Your task to perform on an android device: allow cookies in the chrome app Image 0: 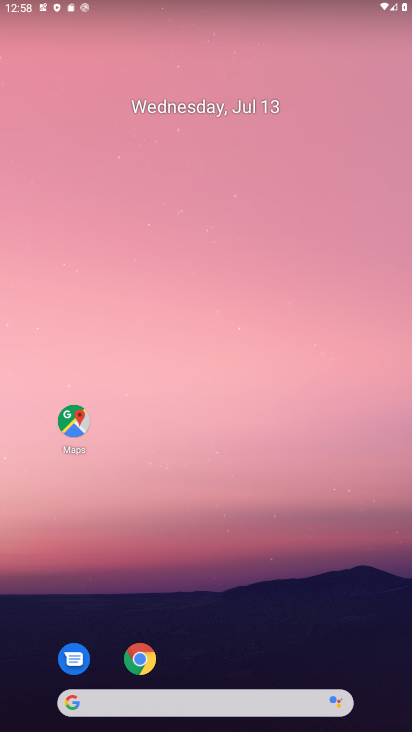
Step 0: drag from (193, 600) to (278, 38)
Your task to perform on an android device: allow cookies in the chrome app Image 1: 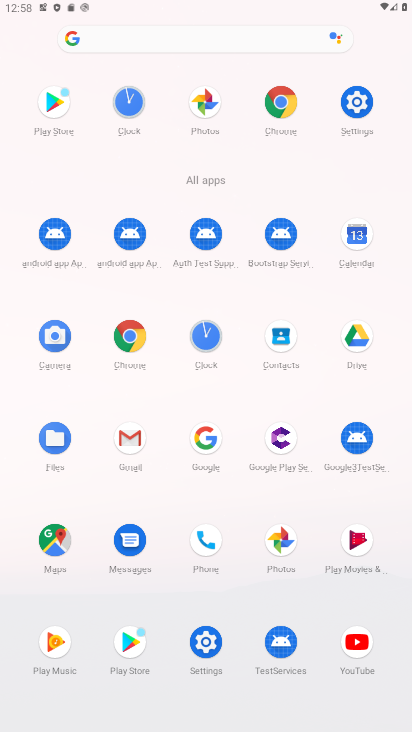
Step 1: click (276, 105)
Your task to perform on an android device: allow cookies in the chrome app Image 2: 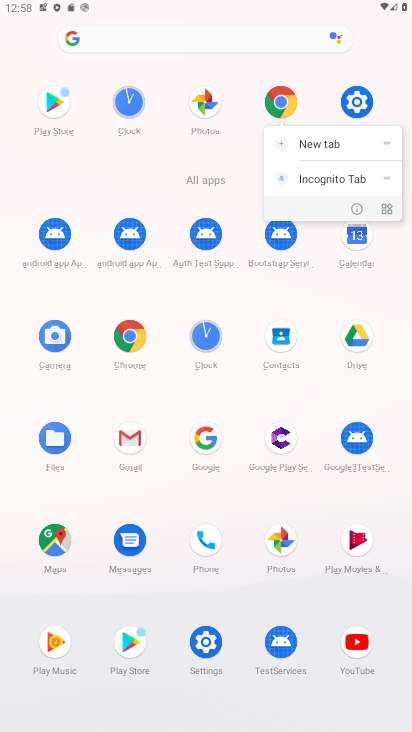
Step 2: click (346, 211)
Your task to perform on an android device: allow cookies in the chrome app Image 3: 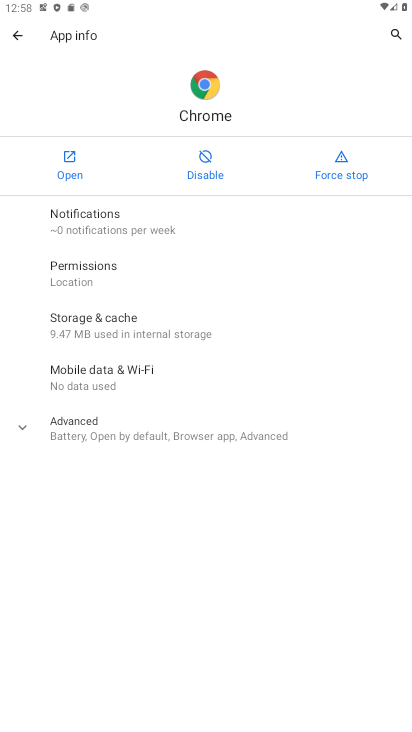
Step 3: click (83, 170)
Your task to perform on an android device: allow cookies in the chrome app Image 4: 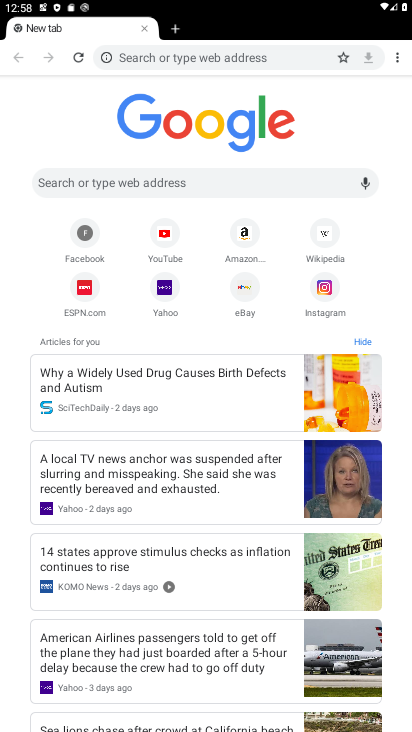
Step 4: click (404, 65)
Your task to perform on an android device: allow cookies in the chrome app Image 5: 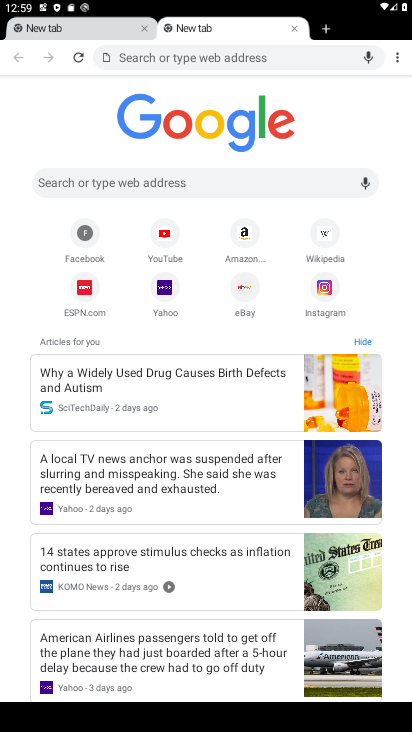
Step 5: click (402, 66)
Your task to perform on an android device: allow cookies in the chrome app Image 6: 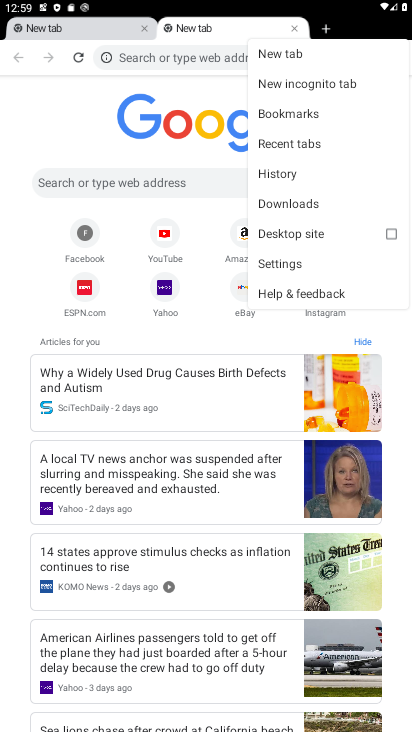
Step 6: click (304, 269)
Your task to perform on an android device: allow cookies in the chrome app Image 7: 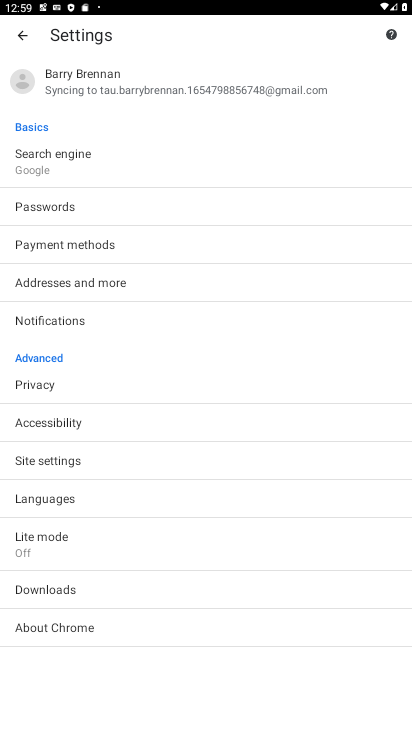
Step 7: drag from (268, 523) to (323, 170)
Your task to perform on an android device: allow cookies in the chrome app Image 8: 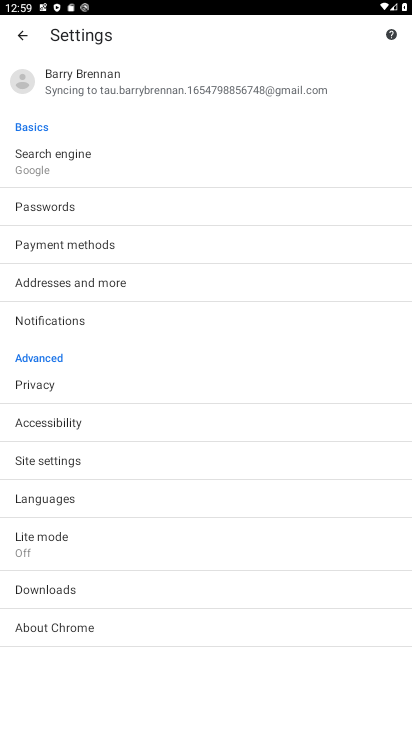
Step 8: drag from (86, 567) to (161, 278)
Your task to perform on an android device: allow cookies in the chrome app Image 9: 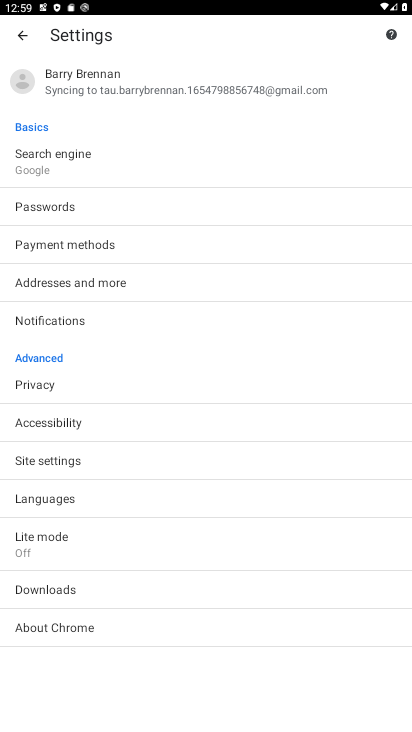
Step 9: click (95, 466)
Your task to perform on an android device: allow cookies in the chrome app Image 10: 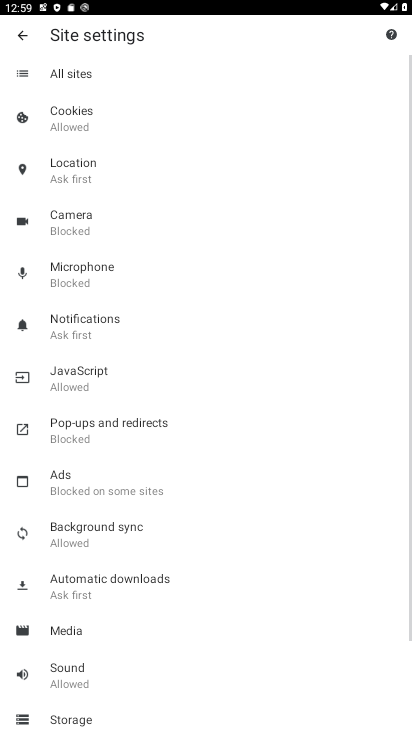
Step 10: click (101, 123)
Your task to perform on an android device: allow cookies in the chrome app Image 11: 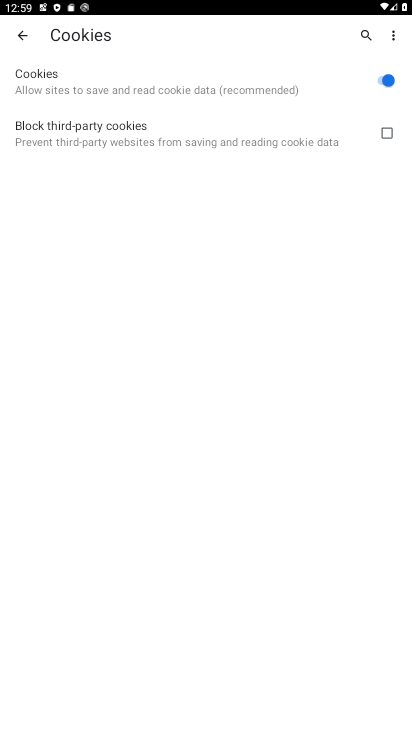
Step 11: task complete